Your task to perform on an android device: Go to network settings Image 0: 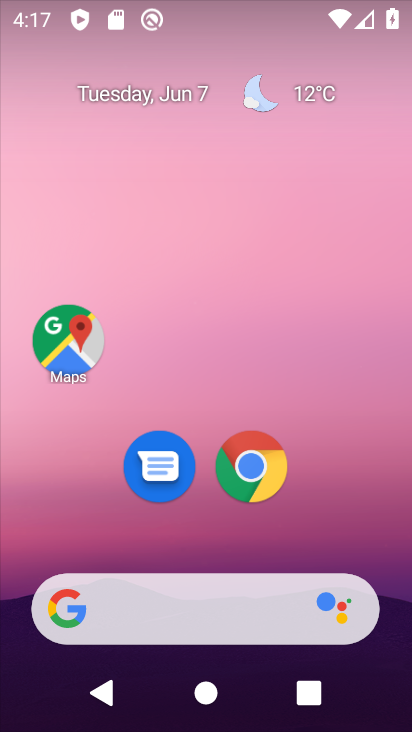
Step 0: drag from (393, 599) to (262, 90)
Your task to perform on an android device: Go to network settings Image 1: 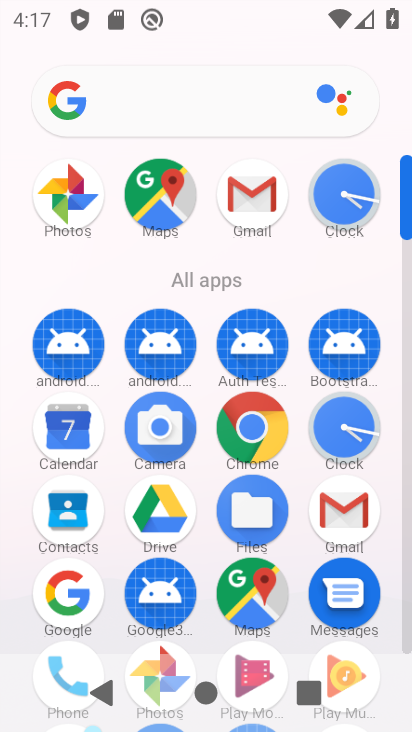
Step 1: click (407, 643)
Your task to perform on an android device: Go to network settings Image 2: 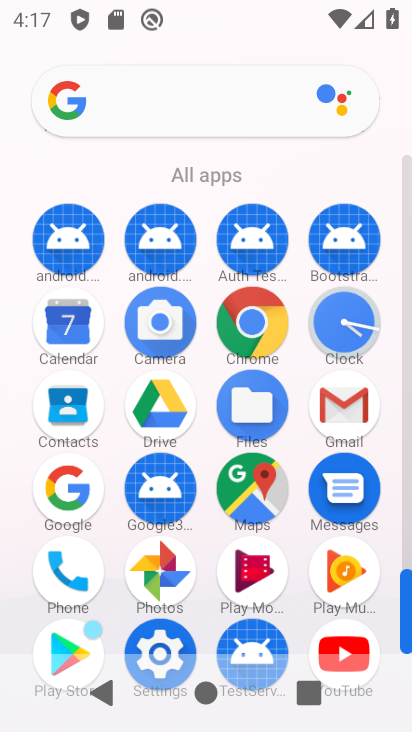
Step 2: click (164, 640)
Your task to perform on an android device: Go to network settings Image 3: 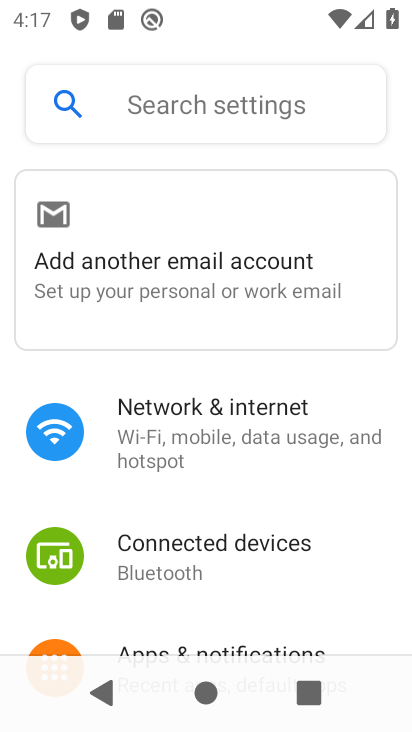
Step 3: click (296, 417)
Your task to perform on an android device: Go to network settings Image 4: 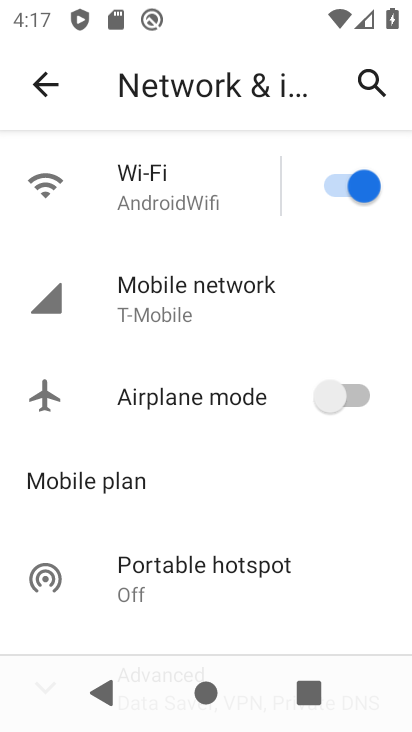
Step 4: task complete